Your task to perform on an android device: open chrome privacy settings Image 0: 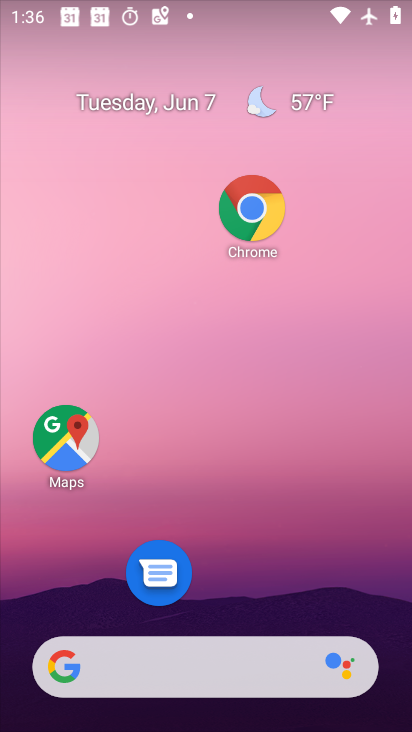
Step 0: click (271, 234)
Your task to perform on an android device: open chrome privacy settings Image 1: 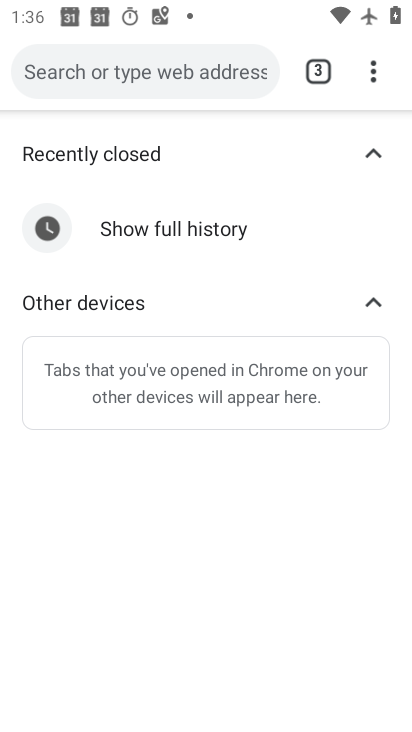
Step 1: click (368, 87)
Your task to perform on an android device: open chrome privacy settings Image 2: 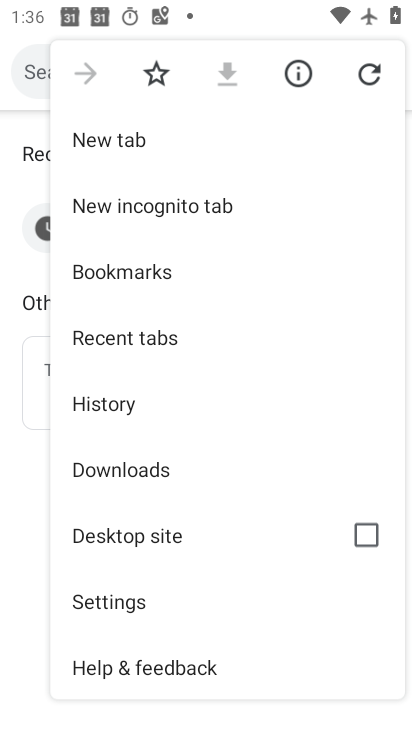
Step 2: drag from (198, 594) to (202, 357)
Your task to perform on an android device: open chrome privacy settings Image 3: 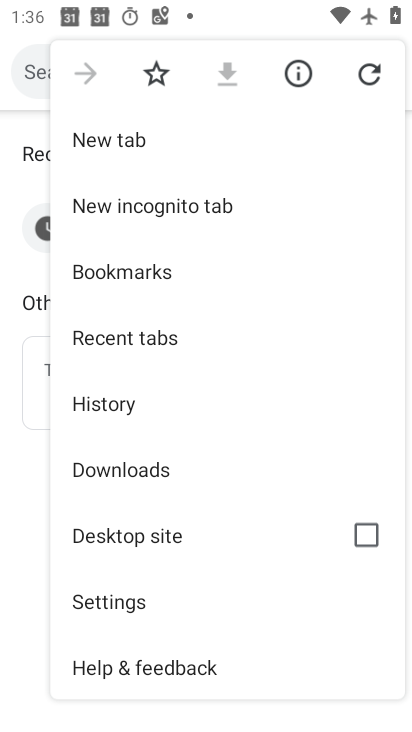
Step 3: click (143, 604)
Your task to perform on an android device: open chrome privacy settings Image 4: 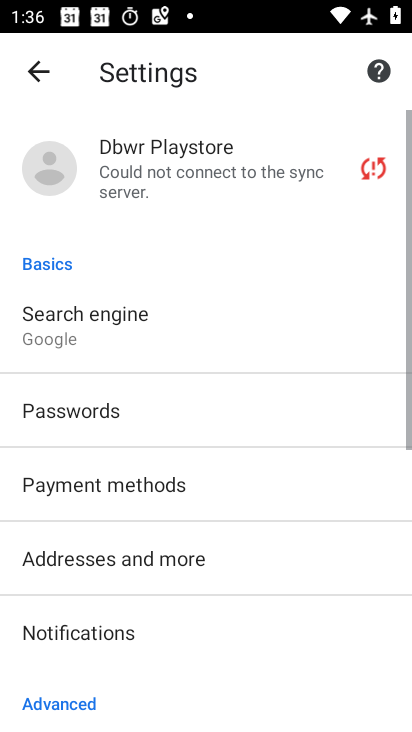
Step 4: drag from (177, 626) to (184, 324)
Your task to perform on an android device: open chrome privacy settings Image 5: 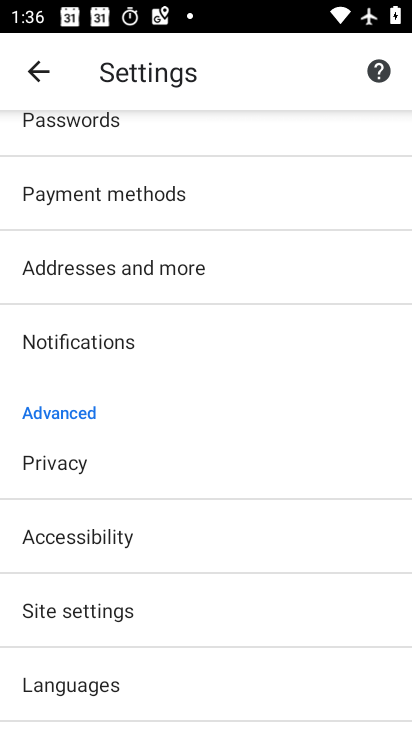
Step 5: click (174, 457)
Your task to perform on an android device: open chrome privacy settings Image 6: 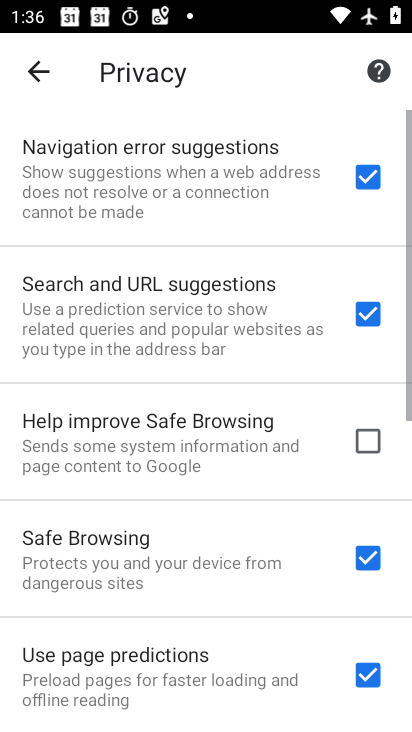
Step 6: task complete